Your task to perform on an android device: turn on priority inbox in the gmail app Image 0: 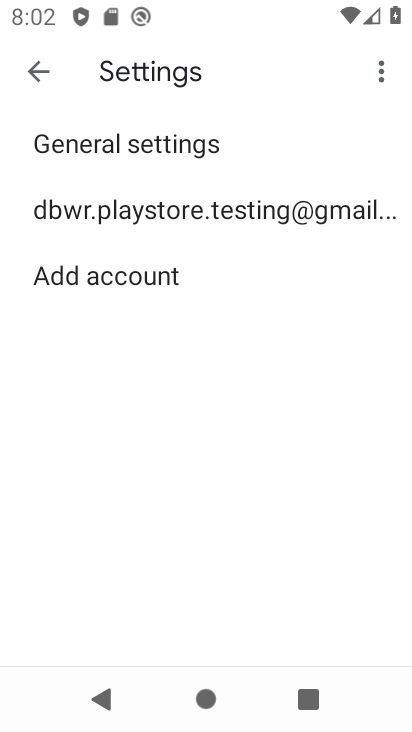
Step 0: click (214, 219)
Your task to perform on an android device: turn on priority inbox in the gmail app Image 1: 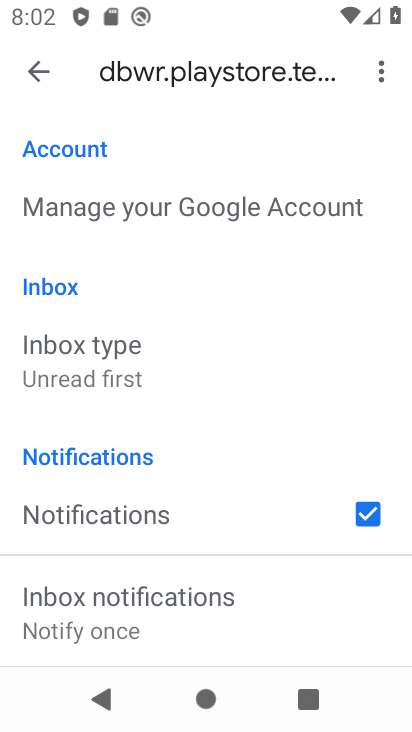
Step 1: click (96, 349)
Your task to perform on an android device: turn on priority inbox in the gmail app Image 2: 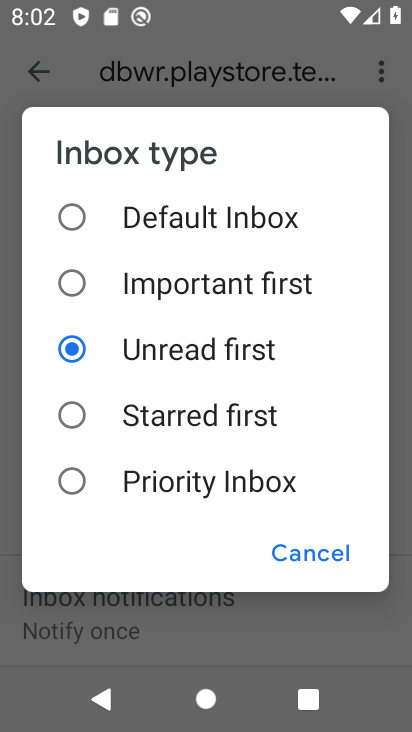
Step 2: click (140, 487)
Your task to perform on an android device: turn on priority inbox in the gmail app Image 3: 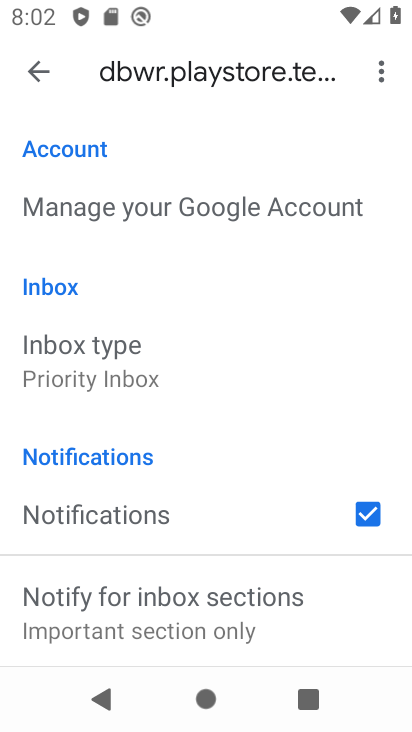
Step 3: task complete